Your task to perform on an android device: turn off sleep mode Image 0: 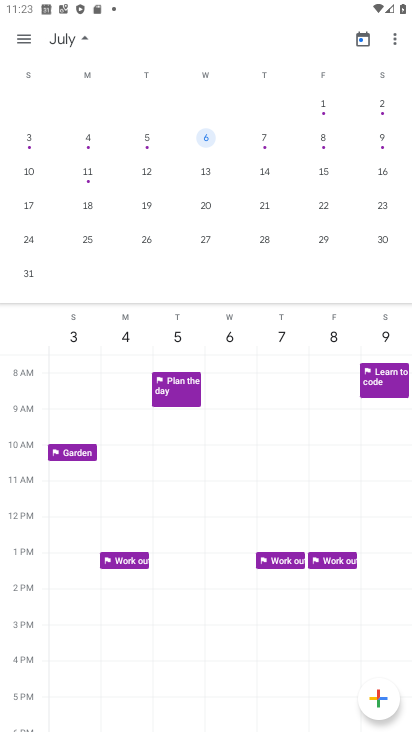
Step 0: press home button
Your task to perform on an android device: turn off sleep mode Image 1: 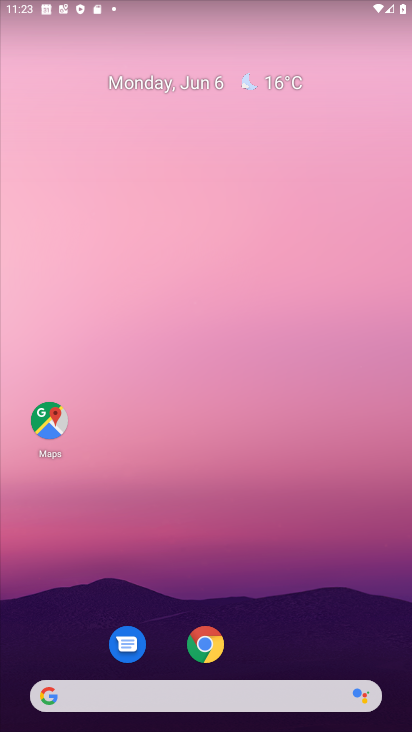
Step 1: drag from (280, 644) to (213, 162)
Your task to perform on an android device: turn off sleep mode Image 2: 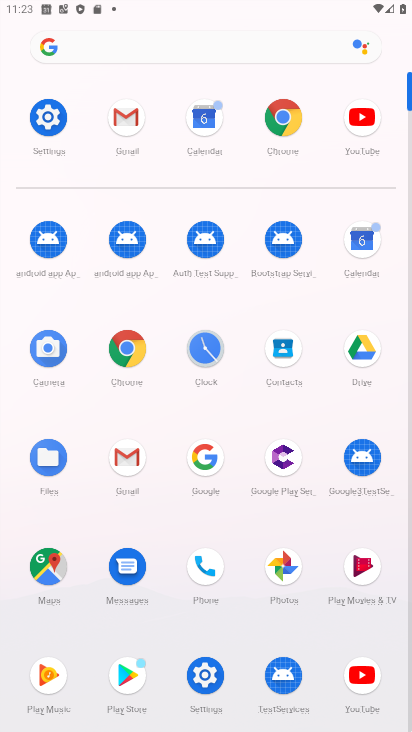
Step 2: click (51, 120)
Your task to perform on an android device: turn off sleep mode Image 3: 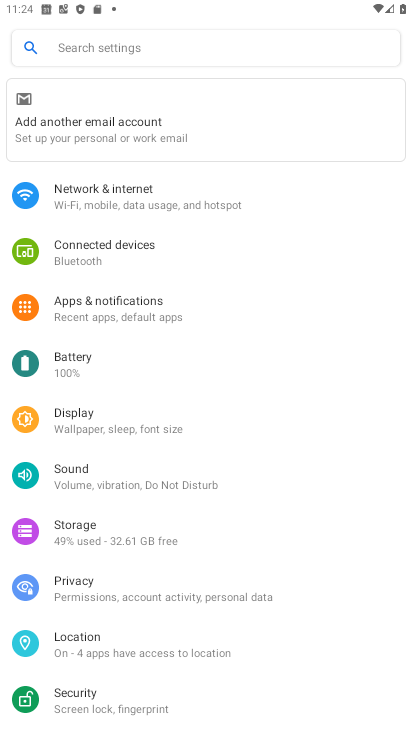
Step 3: click (171, 434)
Your task to perform on an android device: turn off sleep mode Image 4: 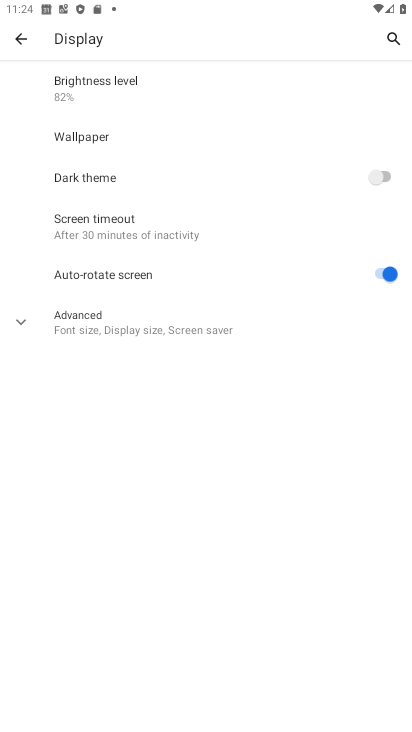
Step 4: click (197, 338)
Your task to perform on an android device: turn off sleep mode Image 5: 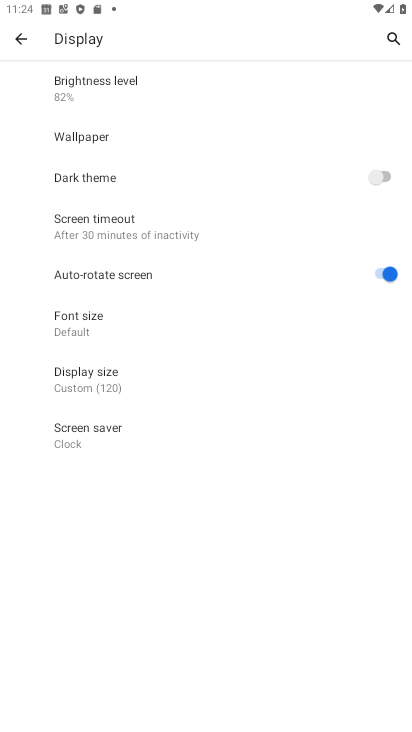
Step 5: task complete